Your task to perform on an android device: Search for Mexican restaurants on Maps Image 0: 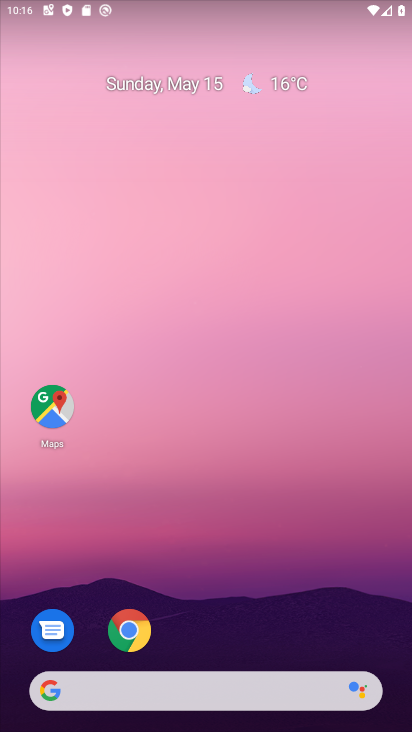
Step 0: click (61, 421)
Your task to perform on an android device: Search for Mexican restaurants on Maps Image 1: 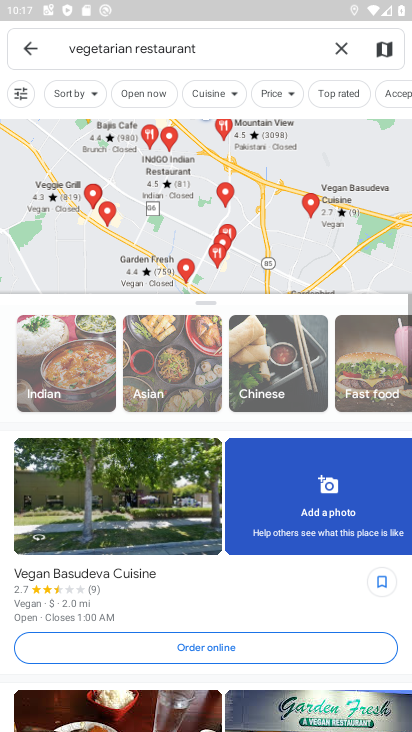
Step 1: click (349, 45)
Your task to perform on an android device: Search for Mexican restaurants on Maps Image 2: 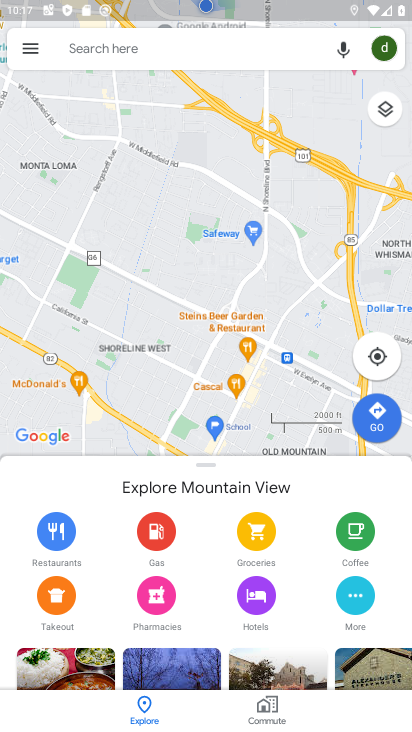
Step 2: click (259, 48)
Your task to perform on an android device: Search for Mexican restaurants on Maps Image 3: 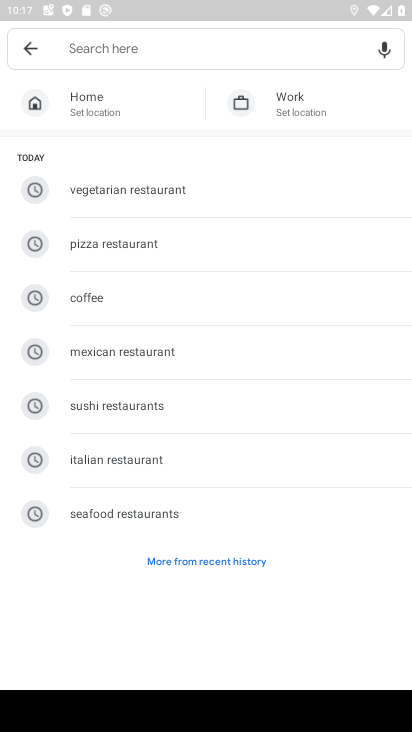
Step 3: type "Mexican restaurants "
Your task to perform on an android device: Search for Mexican restaurants on Maps Image 4: 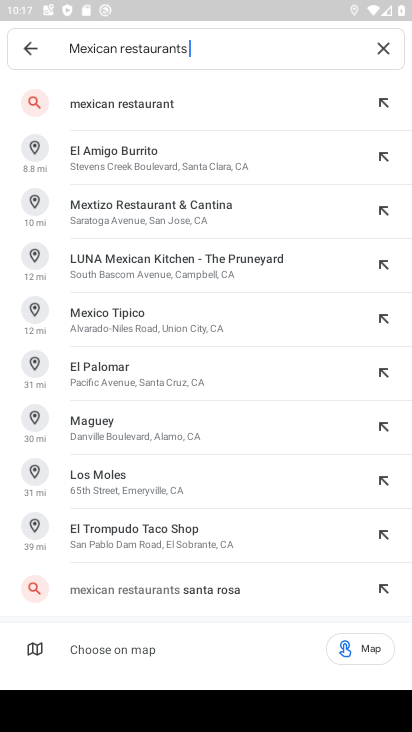
Step 4: click (128, 110)
Your task to perform on an android device: Search for Mexican restaurants on Maps Image 5: 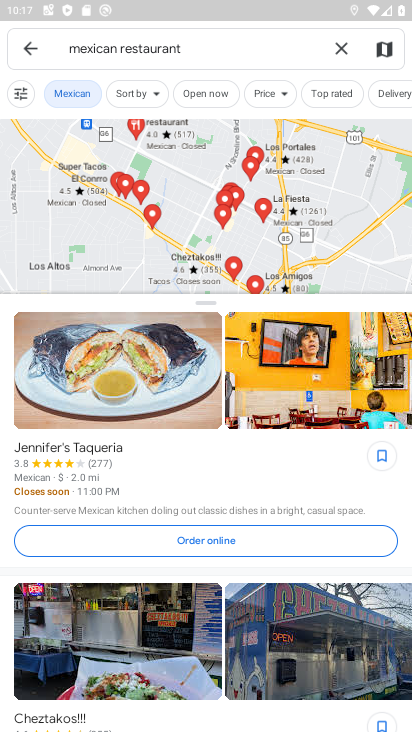
Step 5: task complete